Your task to perform on an android device: open app "PlayWell" Image 0: 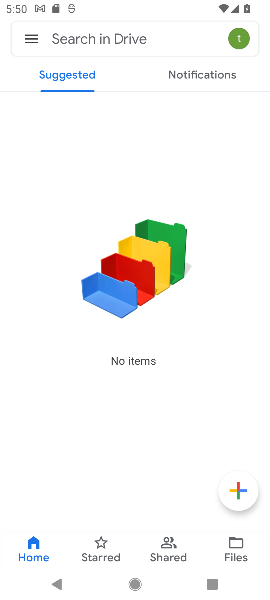
Step 0: press home button
Your task to perform on an android device: open app "PlayWell" Image 1: 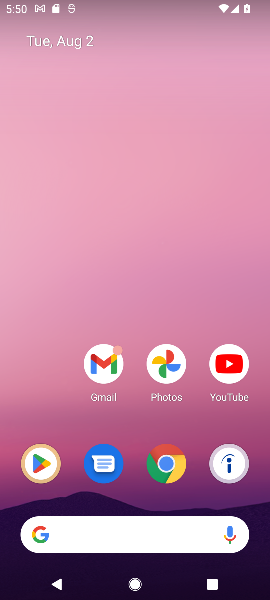
Step 1: click (46, 461)
Your task to perform on an android device: open app "PlayWell" Image 2: 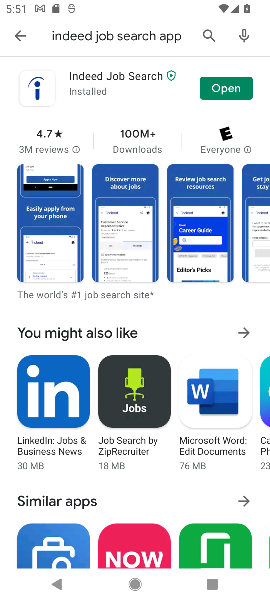
Step 2: click (201, 27)
Your task to perform on an android device: open app "PlayWell" Image 3: 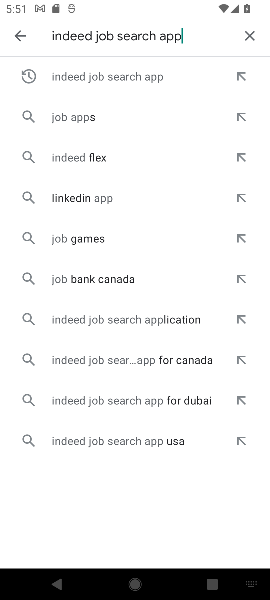
Step 3: click (251, 33)
Your task to perform on an android device: open app "PlayWell" Image 4: 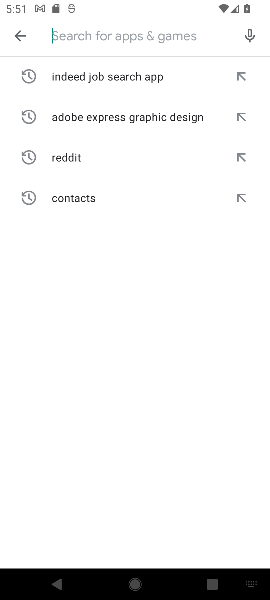
Step 4: type "PlayWell"
Your task to perform on an android device: open app "PlayWell" Image 5: 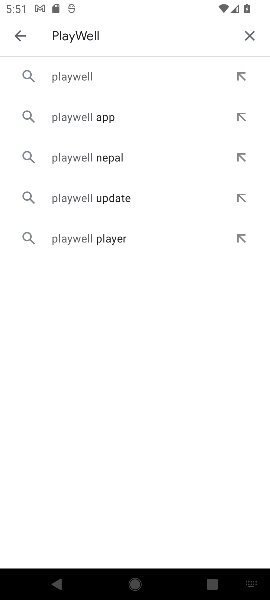
Step 5: click (79, 67)
Your task to perform on an android device: open app "PlayWell" Image 6: 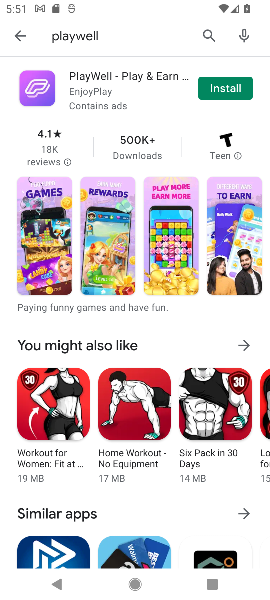
Step 6: task complete